Your task to perform on an android device: set default search engine in the chrome app Image 0: 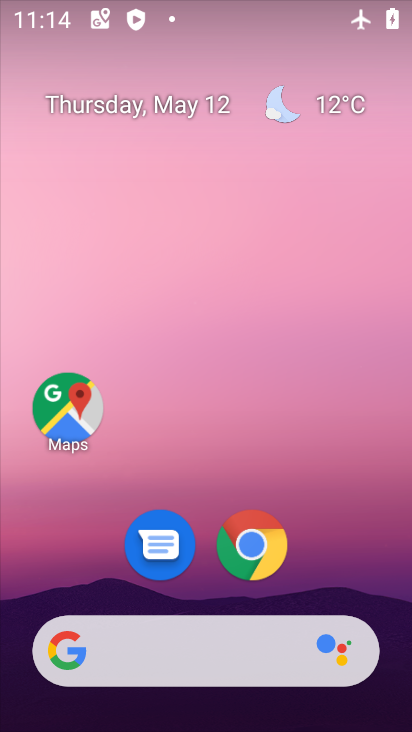
Step 0: click (252, 543)
Your task to perform on an android device: set default search engine in the chrome app Image 1: 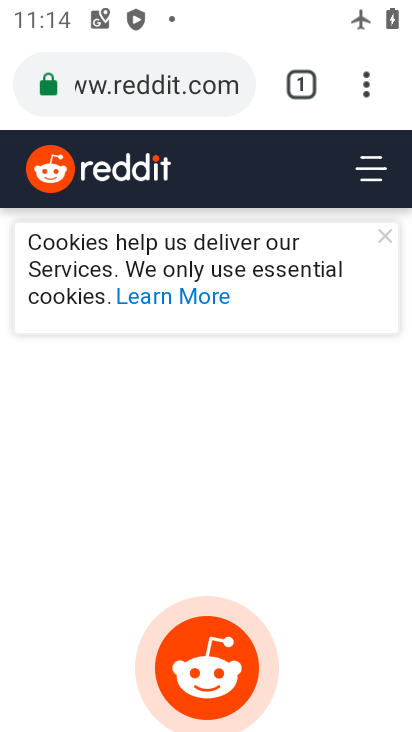
Step 1: click (361, 79)
Your task to perform on an android device: set default search engine in the chrome app Image 2: 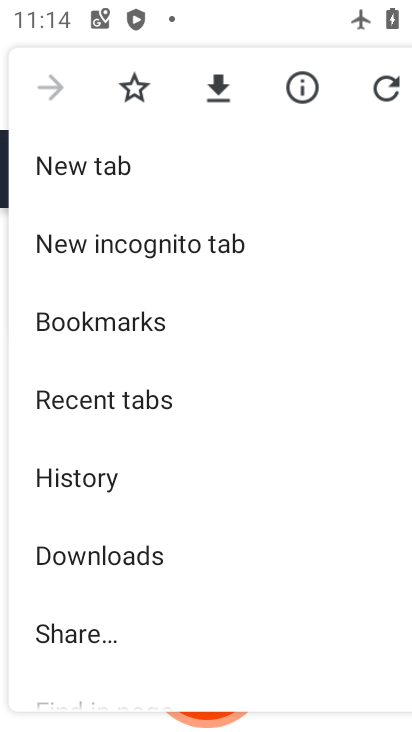
Step 2: drag from (202, 607) to (221, 114)
Your task to perform on an android device: set default search engine in the chrome app Image 3: 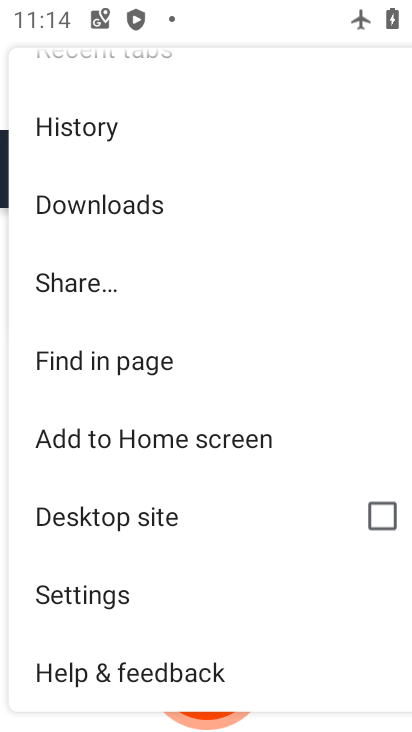
Step 3: click (143, 592)
Your task to perform on an android device: set default search engine in the chrome app Image 4: 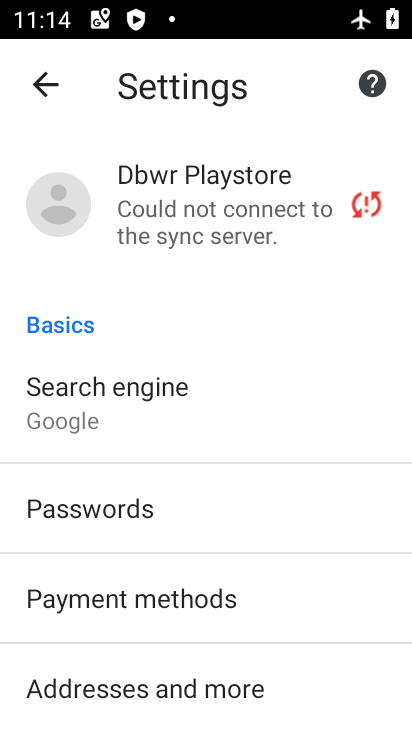
Step 4: click (122, 407)
Your task to perform on an android device: set default search engine in the chrome app Image 5: 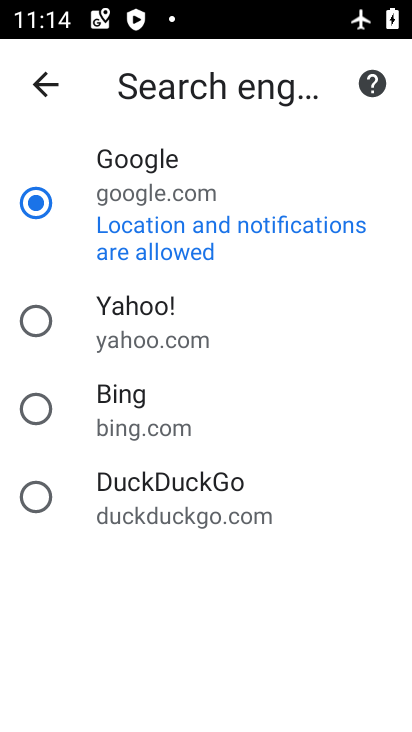
Step 5: click (40, 408)
Your task to perform on an android device: set default search engine in the chrome app Image 6: 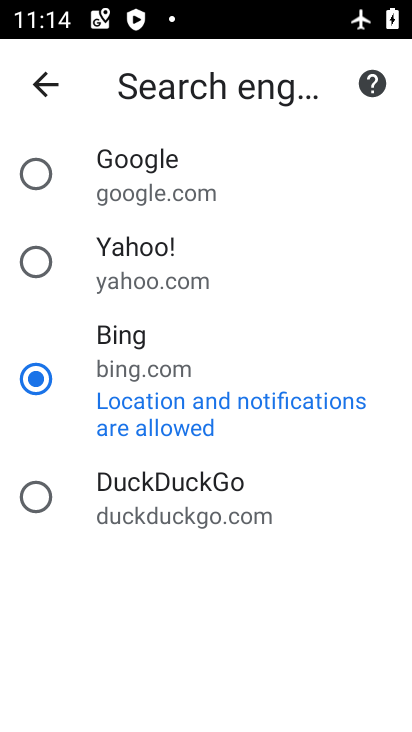
Step 6: task complete